Your task to perform on an android device: toggle notifications settings in the gmail app Image 0: 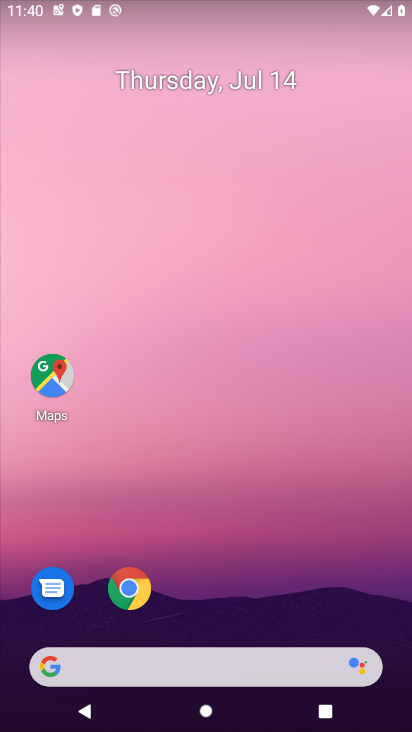
Step 0: drag from (303, 574) to (303, 82)
Your task to perform on an android device: toggle notifications settings in the gmail app Image 1: 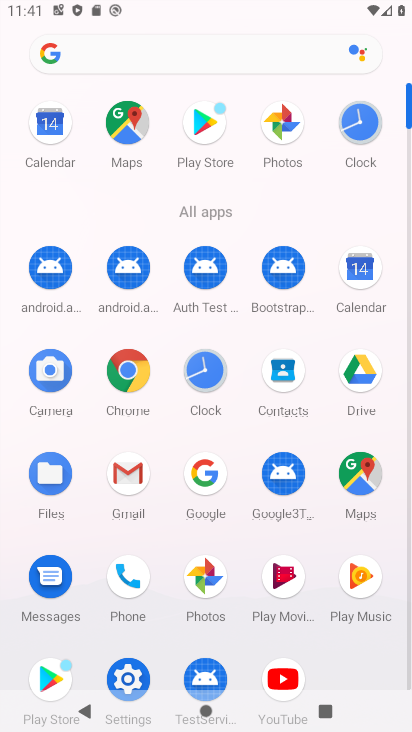
Step 1: click (128, 481)
Your task to perform on an android device: toggle notifications settings in the gmail app Image 2: 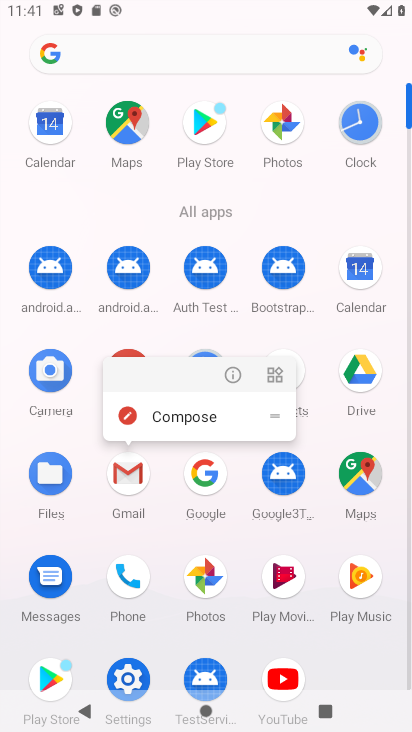
Step 2: click (227, 381)
Your task to perform on an android device: toggle notifications settings in the gmail app Image 3: 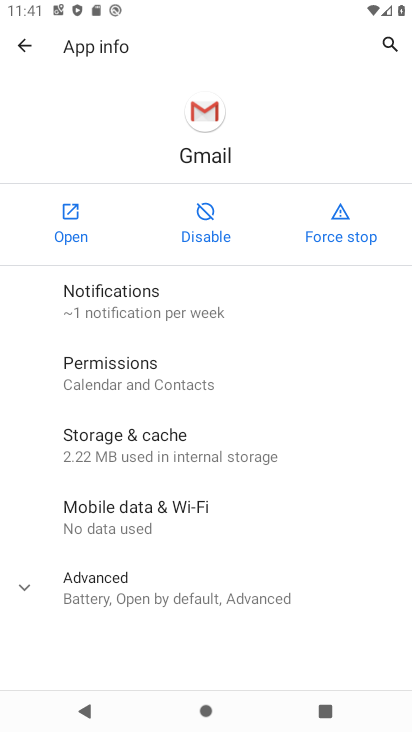
Step 3: click (171, 287)
Your task to perform on an android device: toggle notifications settings in the gmail app Image 4: 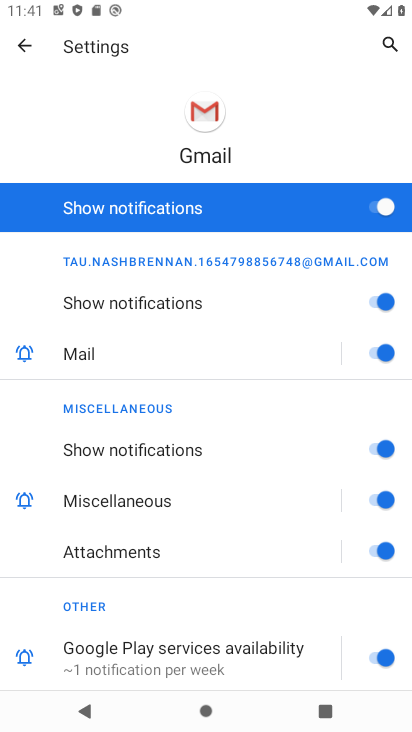
Step 4: click (391, 198)
Your task to perform on an android device: toggle notifications settings in the gmail app Image 5: 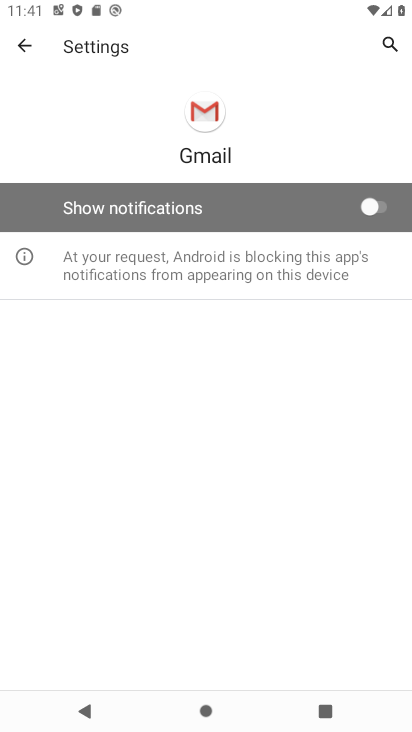
Step 5: task complete